Your task to perform on an android device: change your default location settings in chrome Image 0: 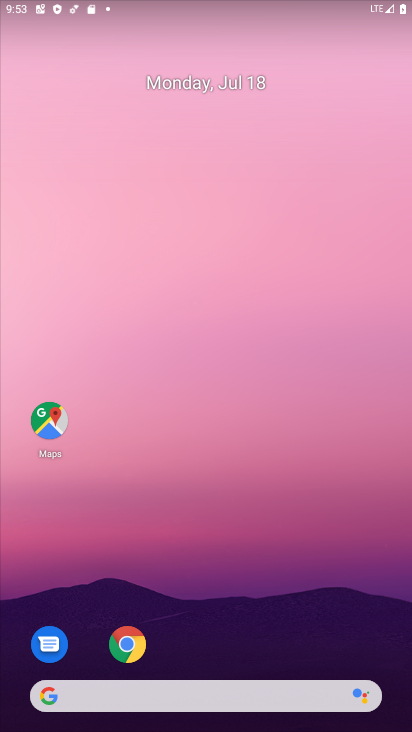
Step 0: drag from (352, 603) to (379, 141)
Your task to perform on an android device: change your default location settings in chrome Image 1: 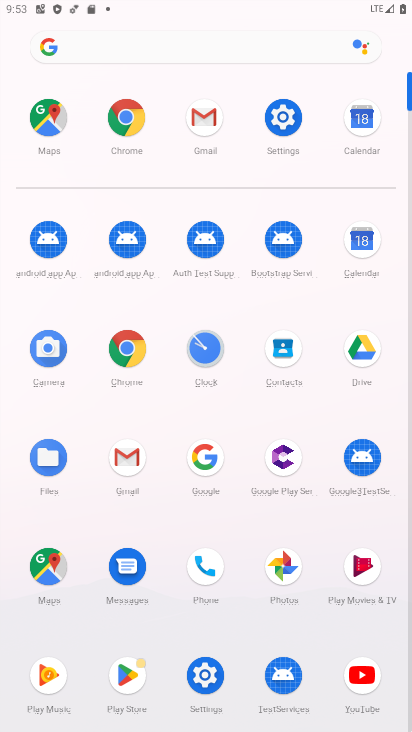
Step 1: click (134, 342)
Your task to perform on an android device: change your default location settings in chrome Image 2: 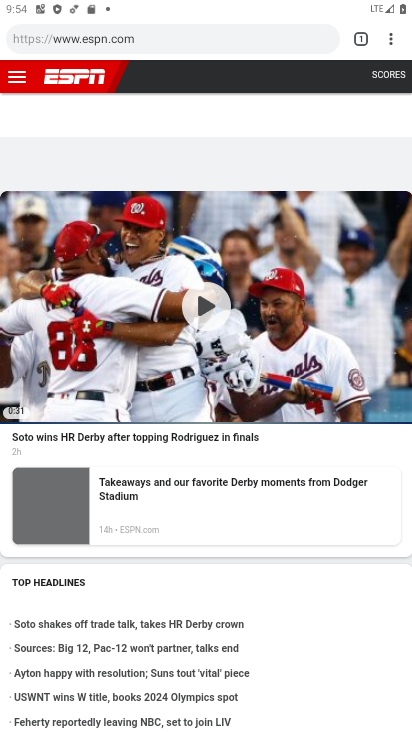
Step 2: click (391, 42)
Your task to perform on an android device: change your default location settings in chrome Image 3: 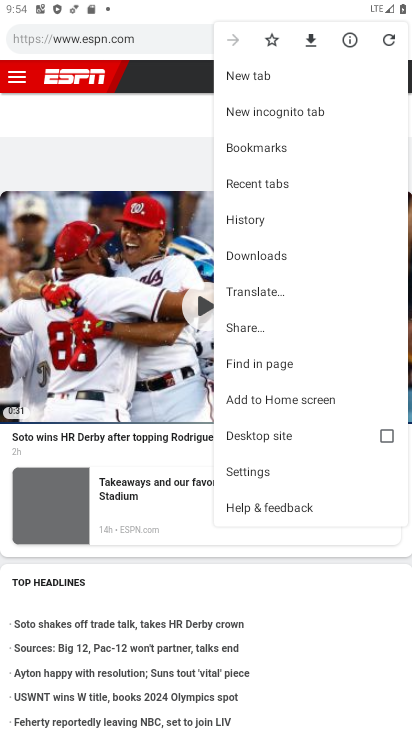
Step 3: click (271, 479)
Your task to perform on an android device: change your default location settings in chrome Image 4: 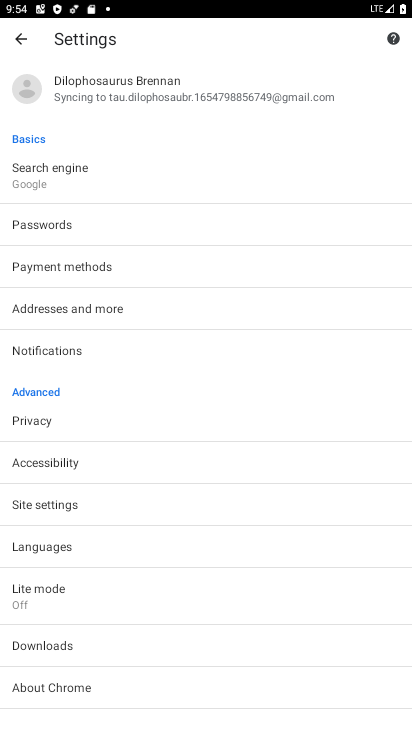
Step 4: drag from (286, 551) to (288, 440)
Your task to perform on an android device: change your default location settings in chrome Image 5: 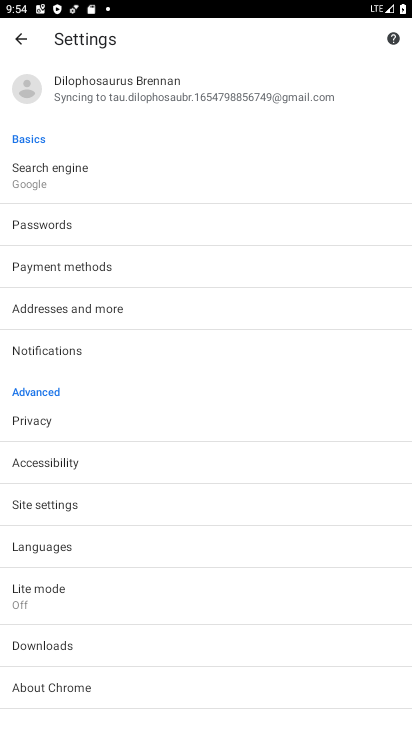
Step 5: drag from (288, 338) to (288, 412)
Your task to perform on an android device: change your default location settings in chrome Image 6: 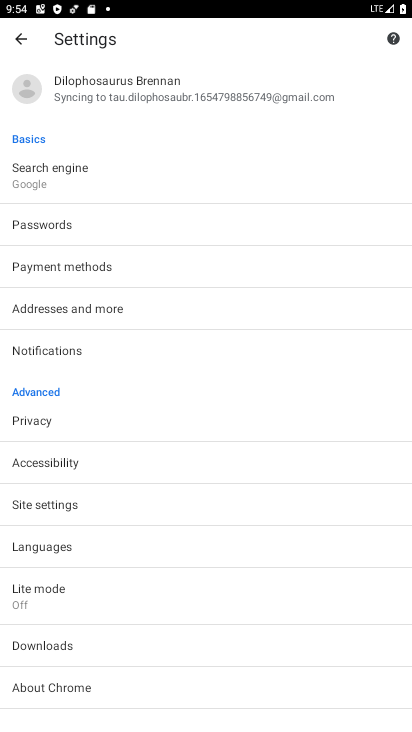
Step 6: click (131, 499)
Your task to perform on an android device: change your default location settings in chrome Image 7: 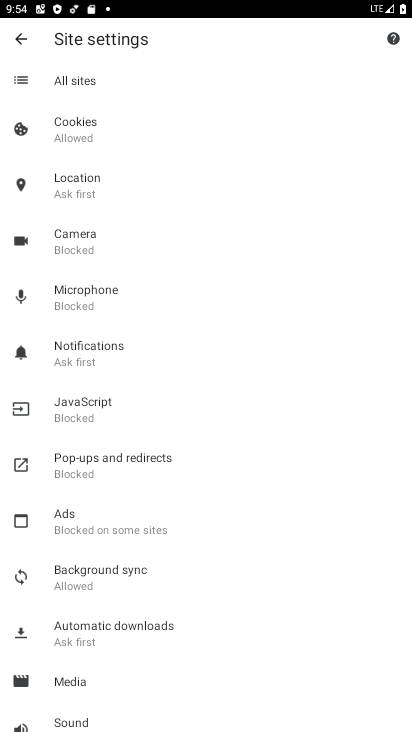
Step 7: drag from (294, 510) to (298, 413)
Your task to perform on an android device: change your default location settings in chrome Image 8: 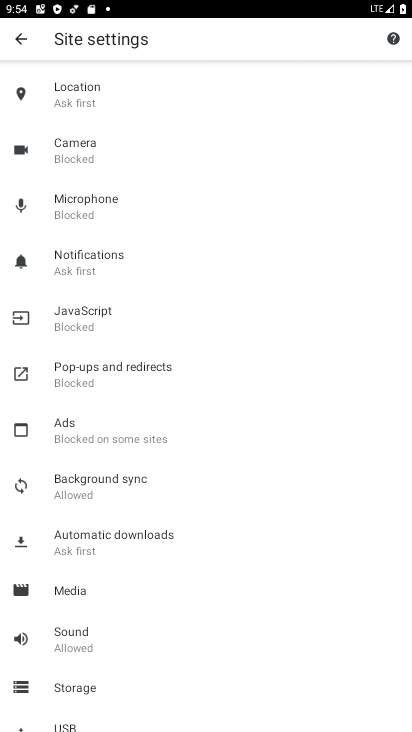
Step 8: drag from (301, 518) to (301, 382)
Your task to perform on an android device: change your default location settings in chrome Image 9: 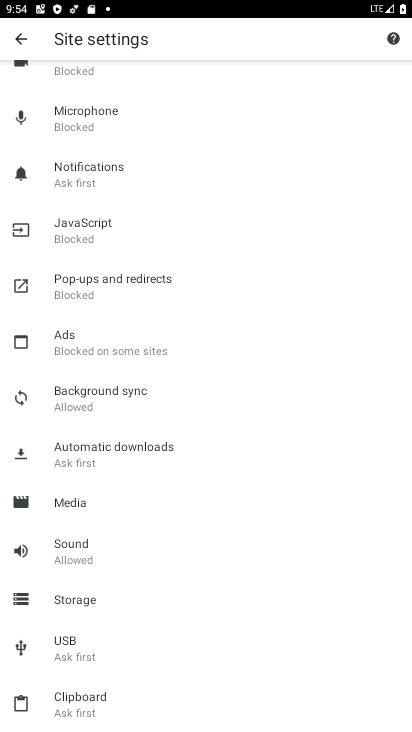
Step 9: drag from (287, 508) to (288, 417)
Your task to perform on an android device: change your default location settings in chrome Image 10: 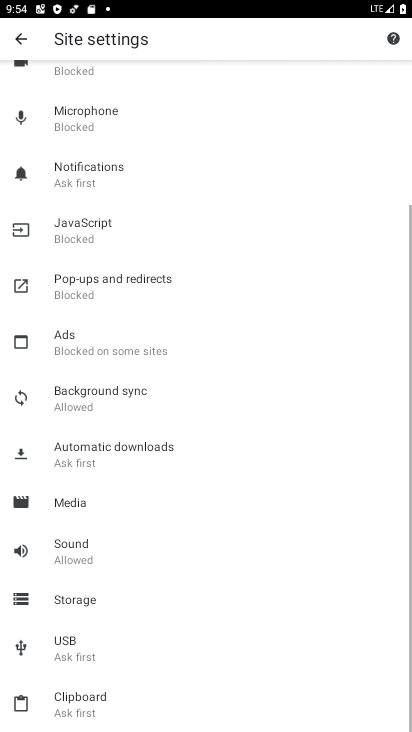
Step 10: drag from (302, 310) to (303, 408)
Your task to perform on an android device: change your default location settings in chrome Image 11: 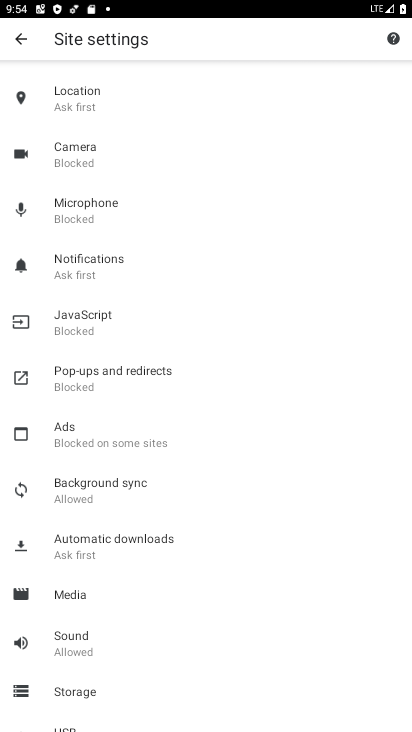
Step 11: drag from (301, 285) to (304, 377)
Your task to perform on an android device: change your default location settings in chrome Image 12: 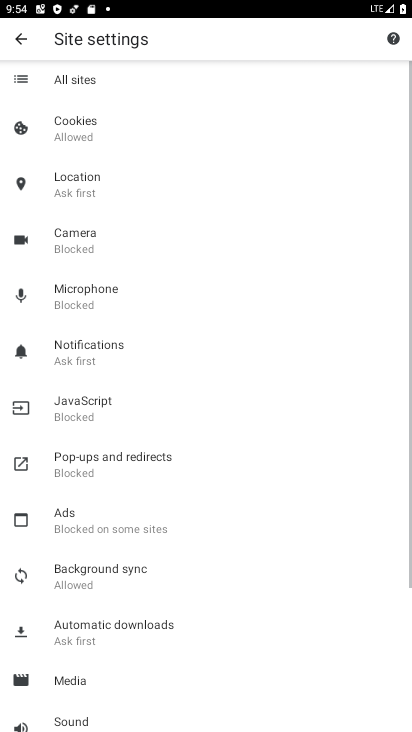
Step 12: drag from (304, 272) to (304, 399)
Your task to perform on an android device: change your default location settings in chrome Image 13: 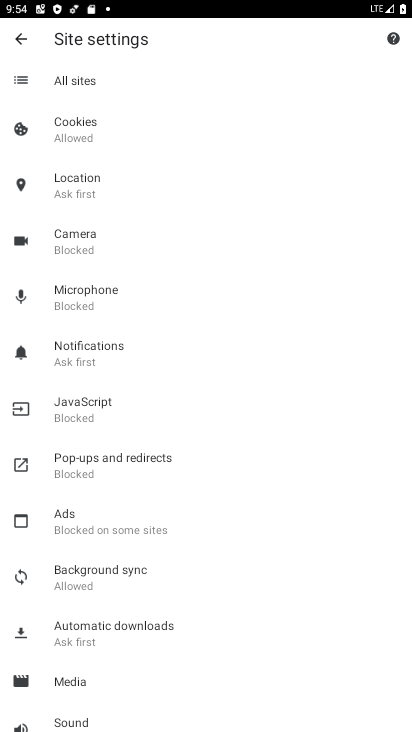
Step 13: drag from (284, 488) to (288, 432)
Your task to perform on an android device: change your default location settings in chrome Image 14: 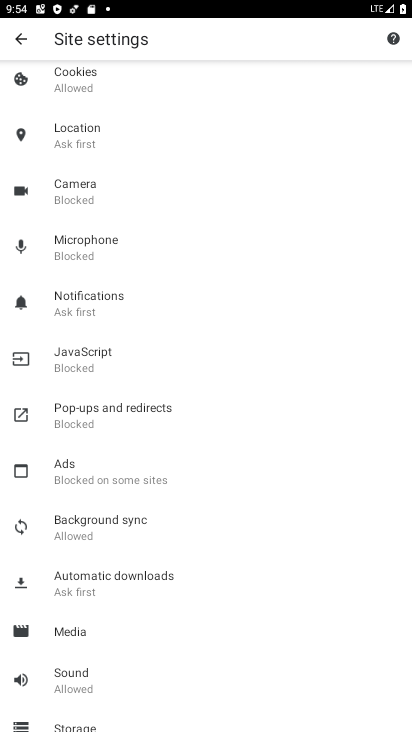
Step 14: drag from (288, 516) to (286, 452)
Your task to perform on an android device: change your default location settings in chrome Image 15: 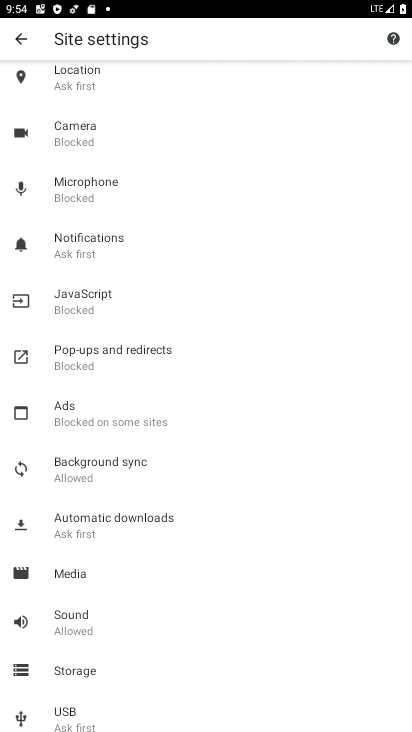
Step 15: drag from (295, 330) to (293, 470)
Your task to perform on an android device: change your default location settings in chrome Image 16: 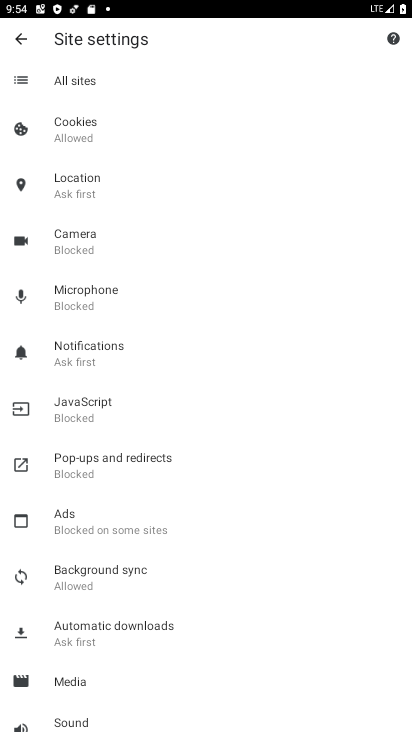
Step 16: click (153, 184)
Your task to perform on an android device: change your default location settings in chrome Image 17: 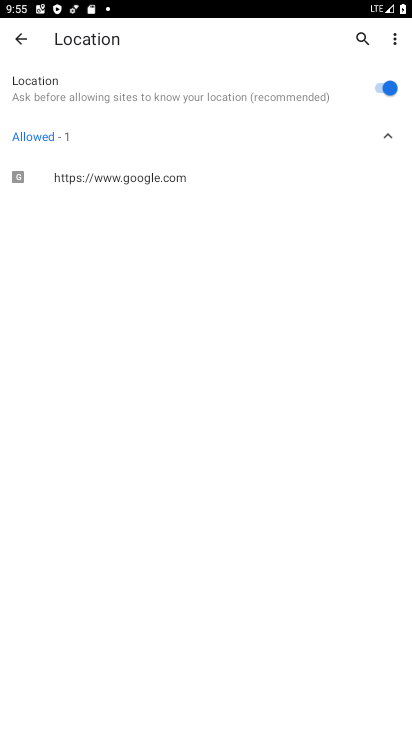
Step 17: click (388, 80)
Your task to perform on an android device: change your default location settings in chrome Image 18: 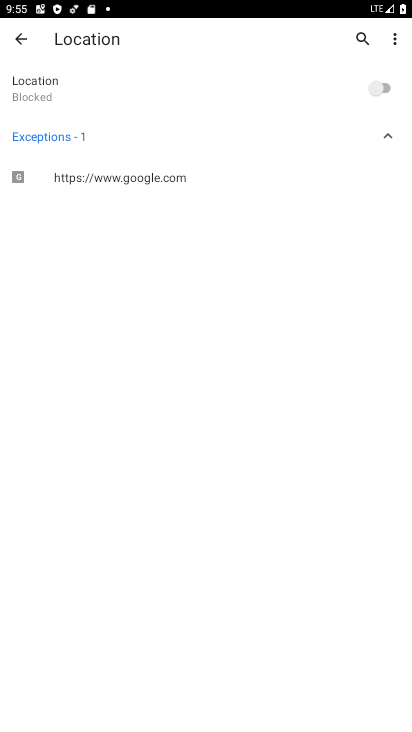
Step 18: task complete